Your task to perform on an android device: delete the emails in spam in the gmail app Image 0: 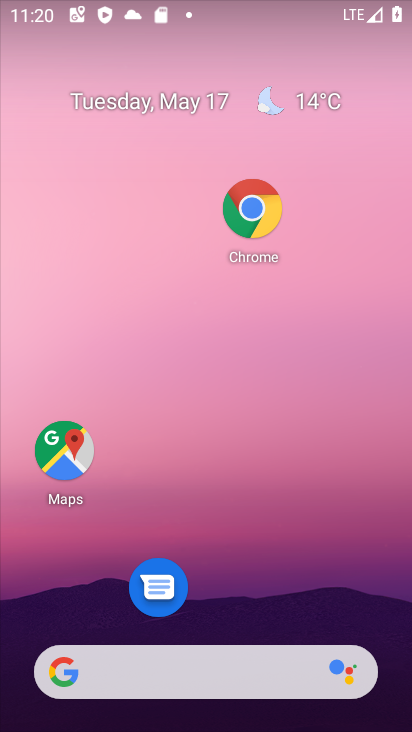
Step 0: drag from (277, 574) to (262, 42)
Your task to perform on an android device: delete the emails in spam in the gmail app Image 1: 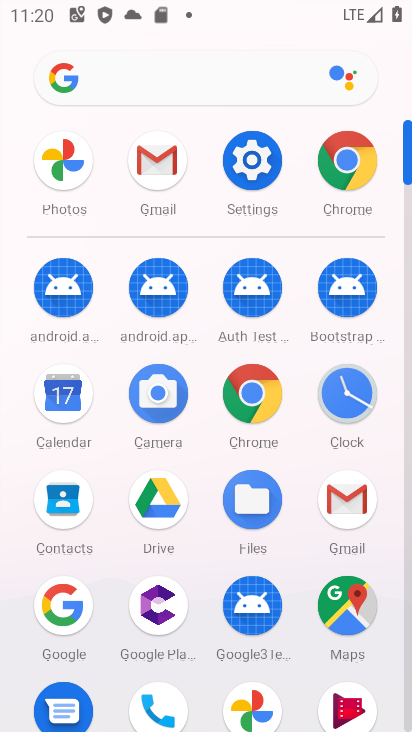
Step 1: click (344, 496)
Your task to perform on an android device: delete the emails in spam in the gmail app Image 2: 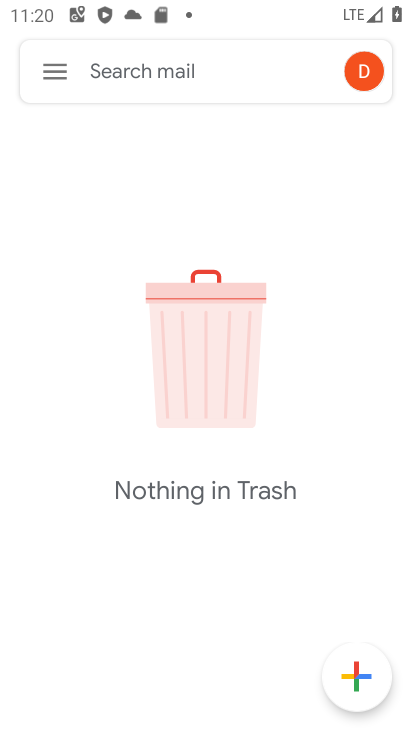
Step 2: click (61, 78)
Your task to perform on an android device: delete the emails in spam in the gmail app Image 3: 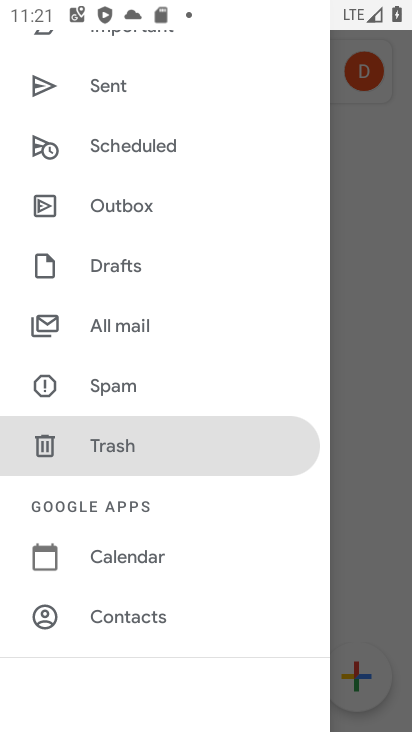
Step 3: click (134, 378)
Your task to perform on an android device: delete the emails in spam in the gmail app Image 4: 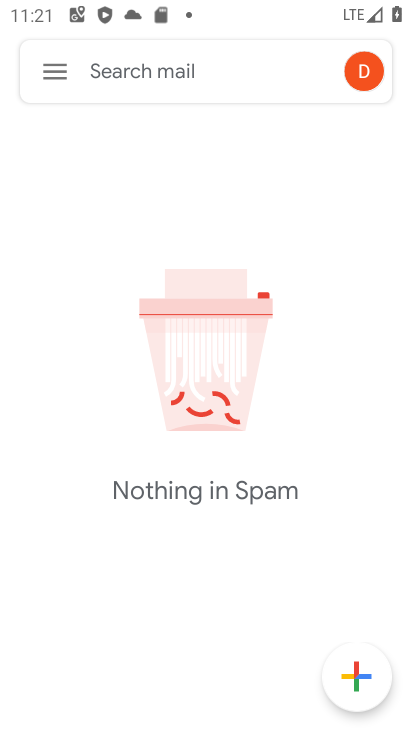
Step 4: task complete